Your task to perform on an android device: turn off location Image 0: 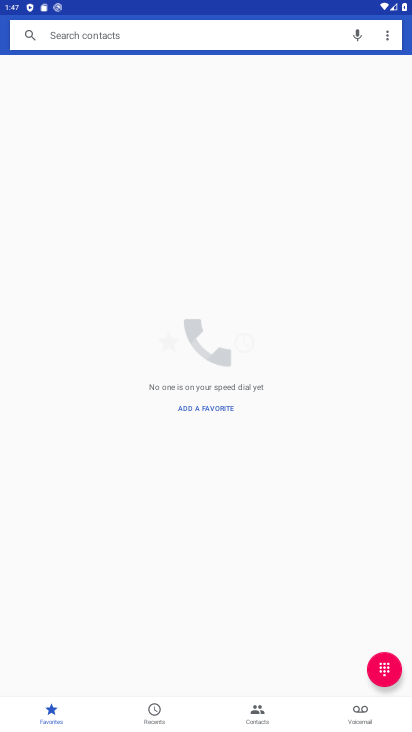
Step 0: press home button
Your task to perform on an android device: turn off location Image 1: 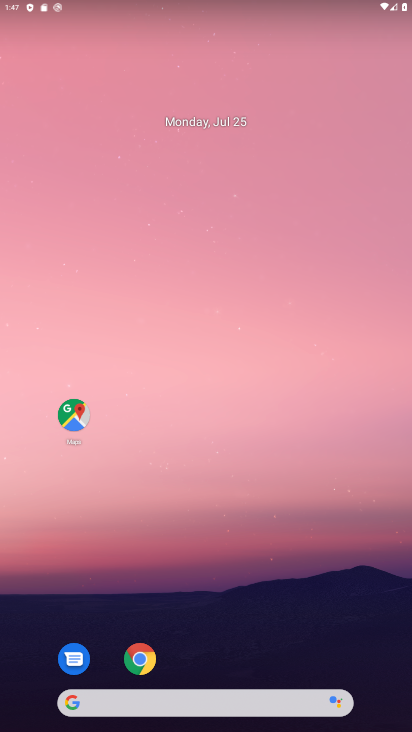
Step 1: drag from (252, 663) to (227, 0)
Your task to perform on an android device: turn off location Image 2: 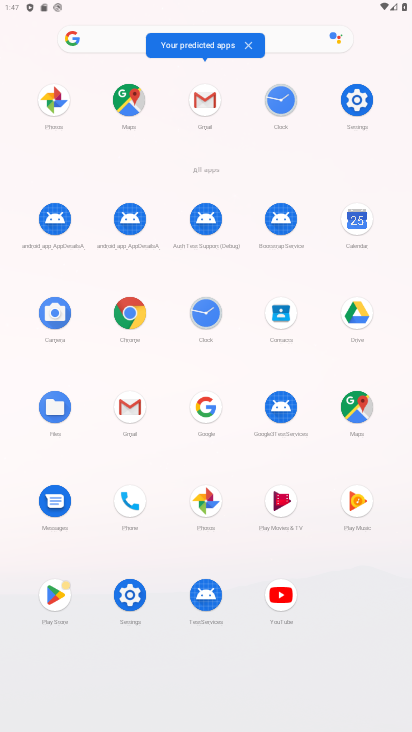
Step 2: click (133, 590)
Your task to perform on an android device: turn off location Image 3: 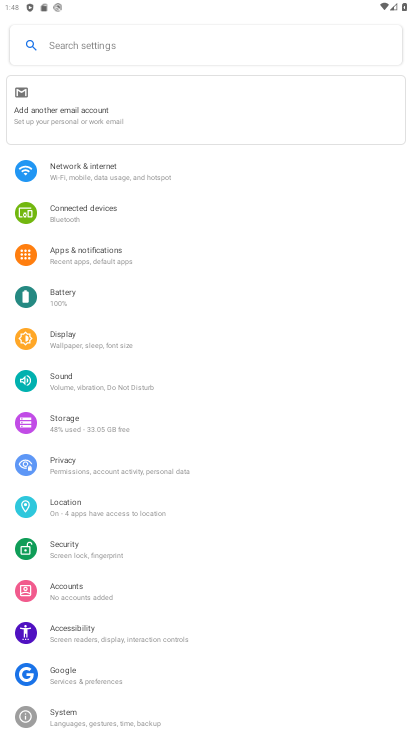
Step 3: click (111, 504)
Your task to perform on an android device: turn off location Image 4: 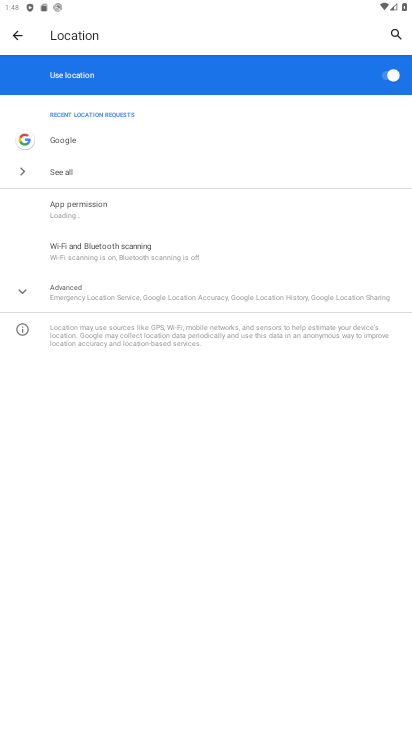
Step 4: click (132, 297)
Your task to perform on an android device: turn off location Image 5: 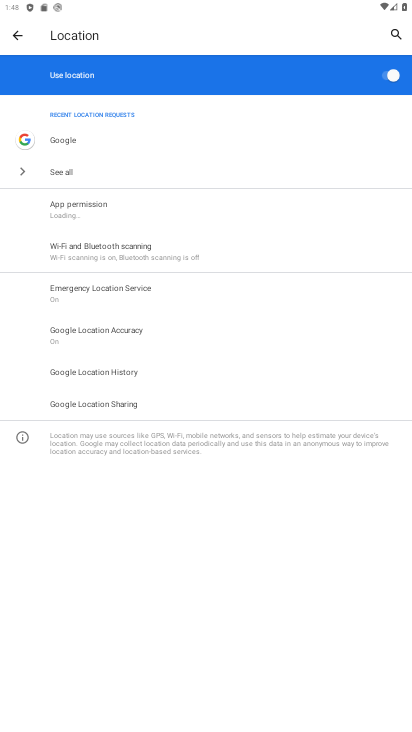
Step 5: click (356, 86)
Your task to perform on an android device: turn off location Image 6: 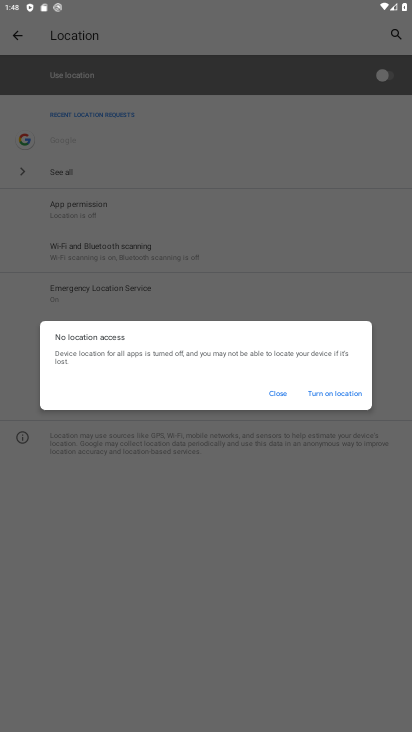
Step 6: task complete